Your task to perform on an android device: Do I have any events this weekend? Image 0: 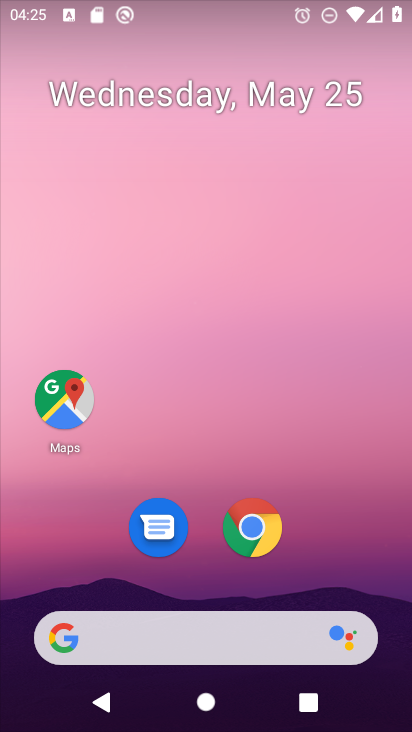
Step 0: drag from (285, 603) to (333, 19)
Your task to perform on an android device: Do I have any events this weekend? Image 1: 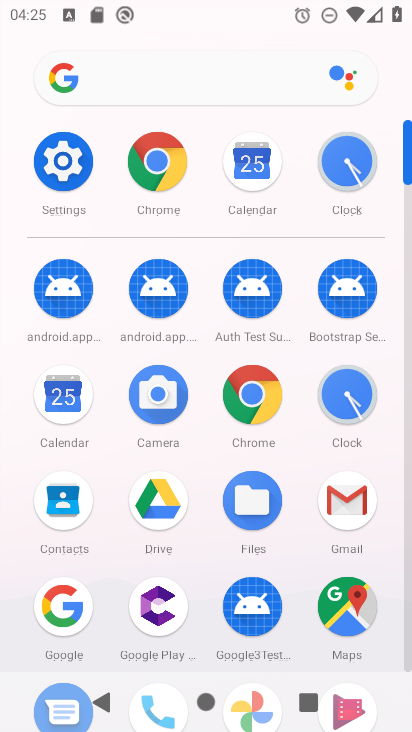
Step 1: click (85, 411)
Your task to perform on an android device: Do I have any events this weekend? Image 2: 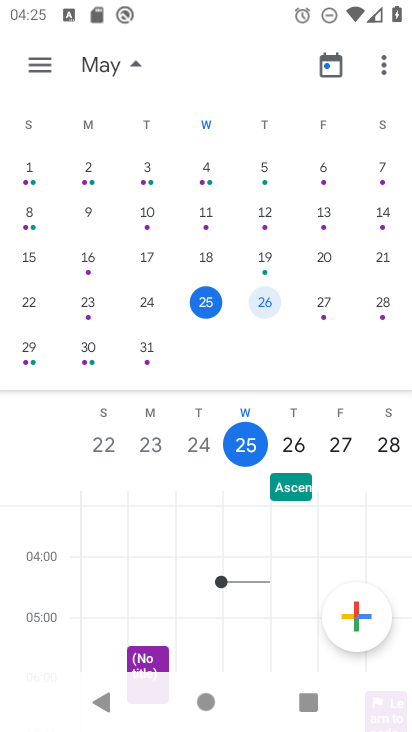
Step 2: click (375, 301)
Your task to perform on an android device: Do I have any events this weekend? Image 3: 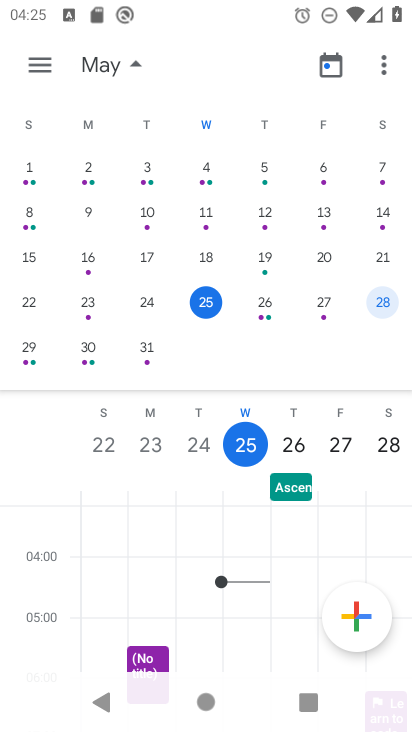
Step 3: task complete